Your task to perform on an android device: Check the news Image 0: 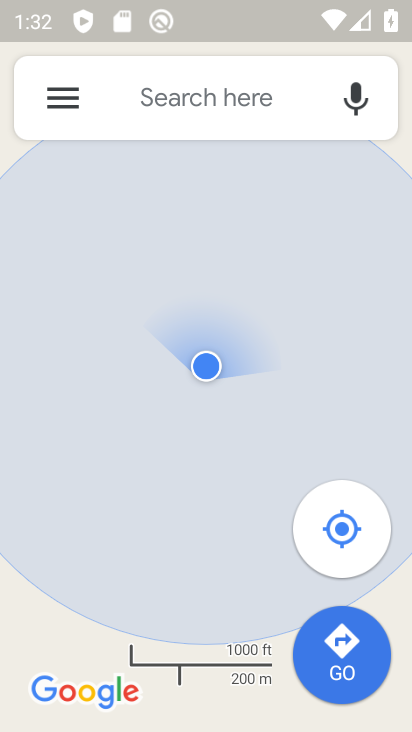
Step 0: press home button
Your task to perform on an android device: Check the news Image 1: 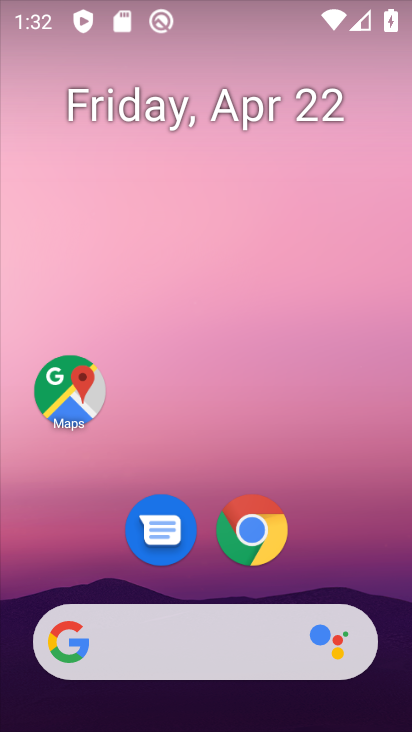
Step 1: task complete